Your task to perform on an android device: change keyboard looks Image 0: 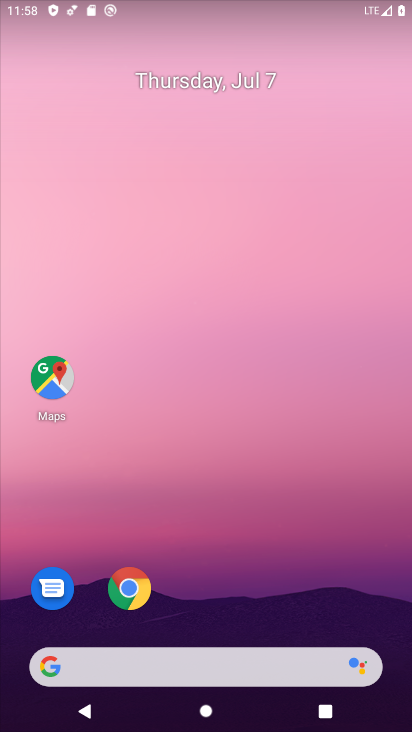
Step 0: drag from (232, 626) to (242, 81)
Your task to perform on an android device: change keyboard looks Image 1: 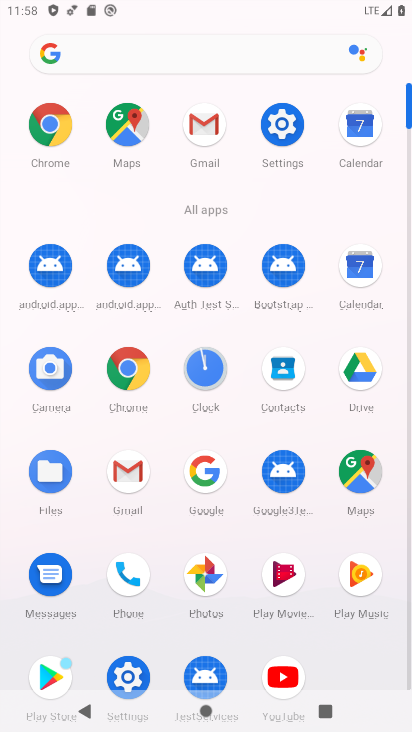
Step 1: click (279, 115)
Your task to perform on an android device: change keyboard looks Image 2: 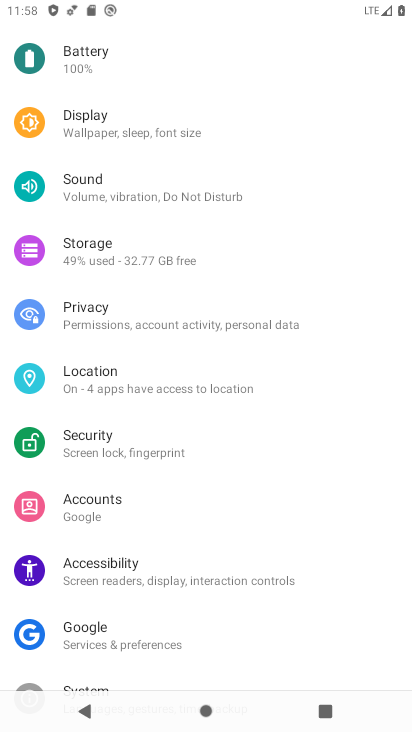
Step 2: drag from (163, 652) to (192, 219)
Your task to perform on an android device: change keyboard looks Image 3: 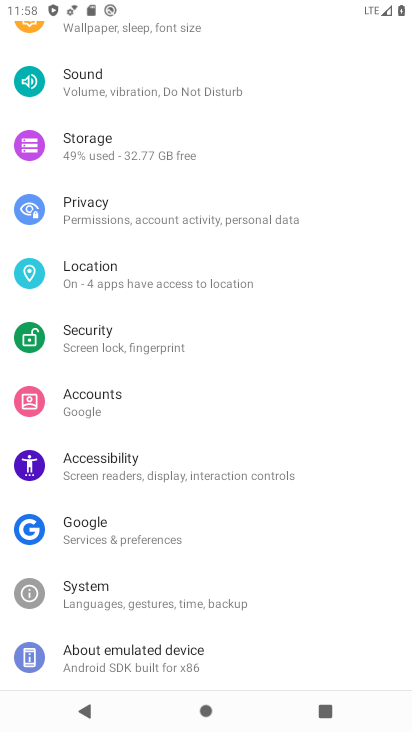
Step 3: click (123, 580)
Your task to perform on an android device: change keyboard looks Image 4: 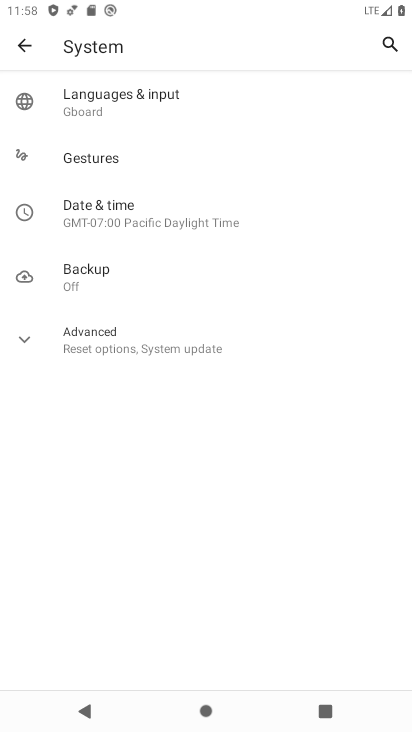
Step 4: click (25, 331)
Your task to perform on an android device: change keyboard looks Image 5: 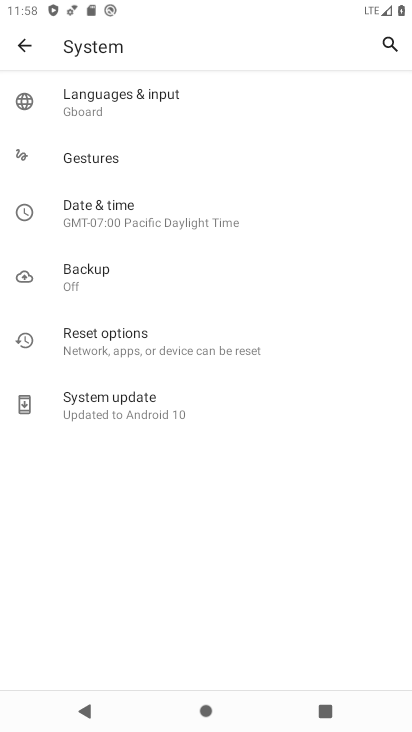
Step 5: click (48, 95)
Your task to perform on an android device: change keyboard looks Image 6: 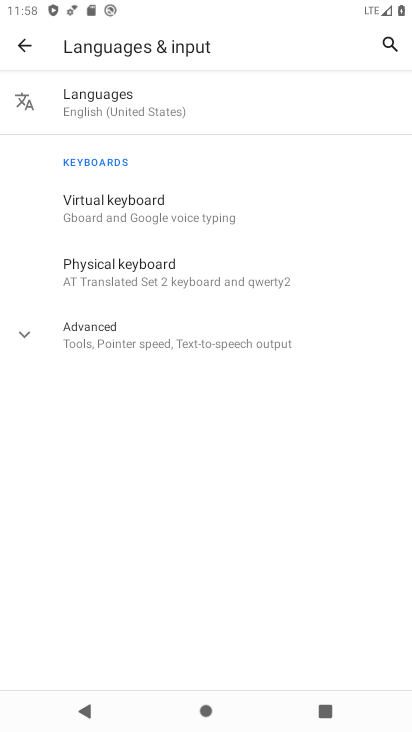
Step 6: click (36, 204)
Your task to perform on an android device: change keyboard looks Image 7: 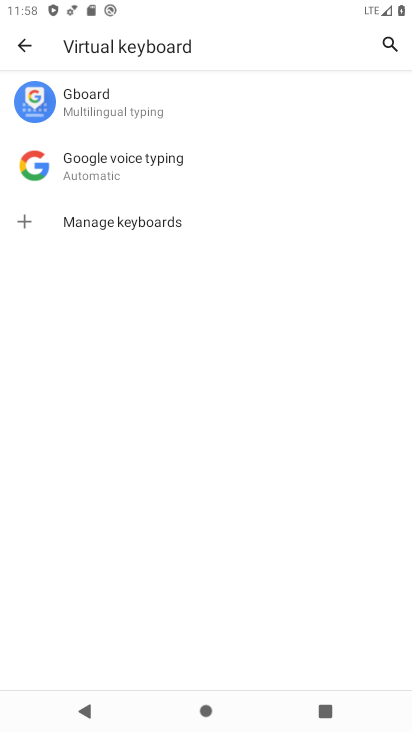
Step 7: click (137, 98)
Your task to perform on an android device: change keyboard looks Image 8: 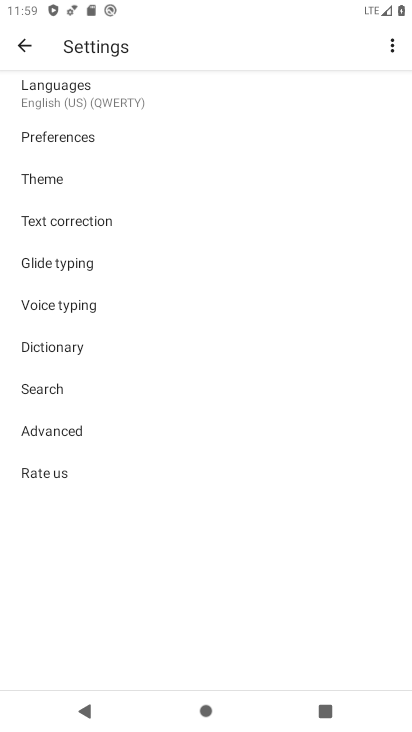
Step 8: click (72, 177)
Your task to perform on an android device: change keyboard looks Image 9: 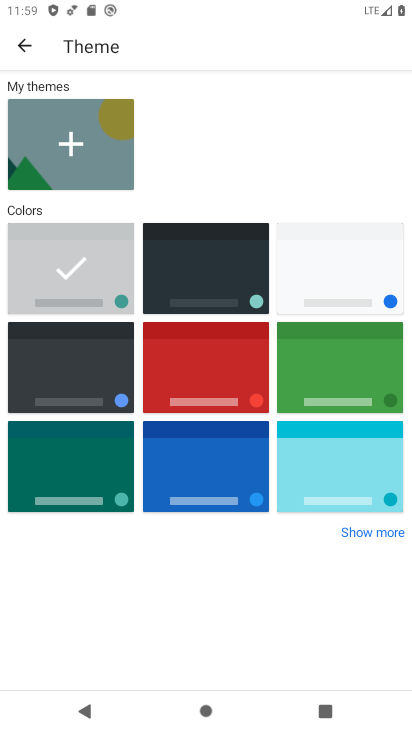
Step 9: click (68, 369)
Your task to perform on an android device: change keyboard looks Image 10: 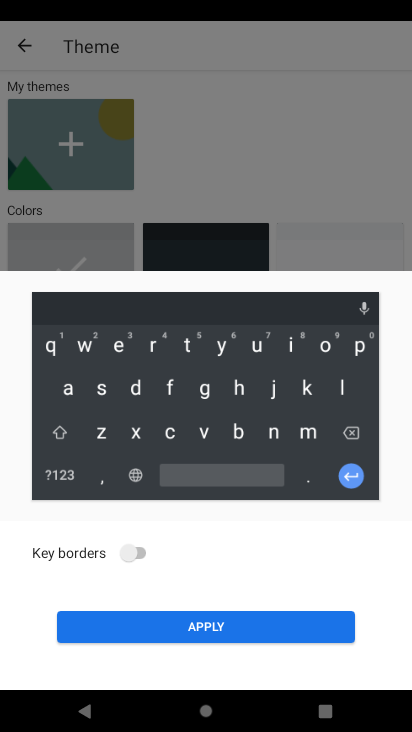
Step 10: click (209, 622)
Your task to perform on an android device: change keyboard looks Image 11: 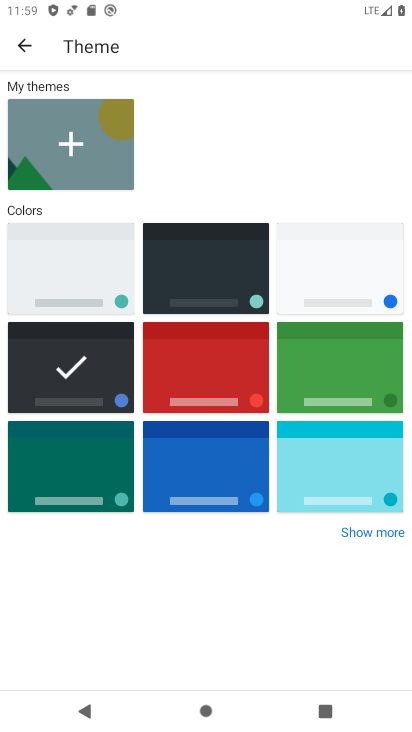
Step 11: task complete